Your task to perform on an android device: Open network settings Image 0: 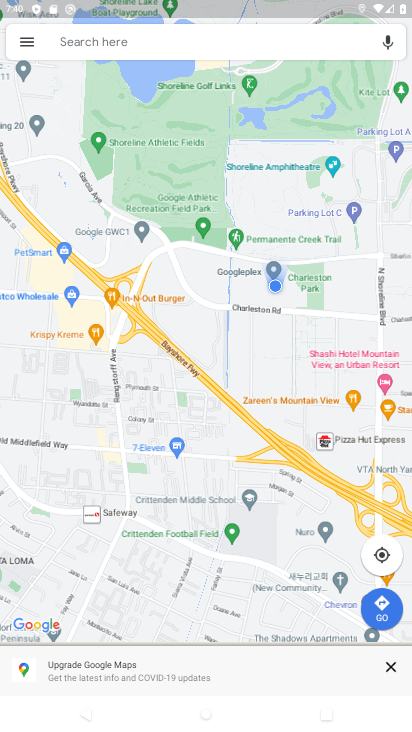
Step 0: press home button
Your task to perform on an android device: Open network settings Image 1: 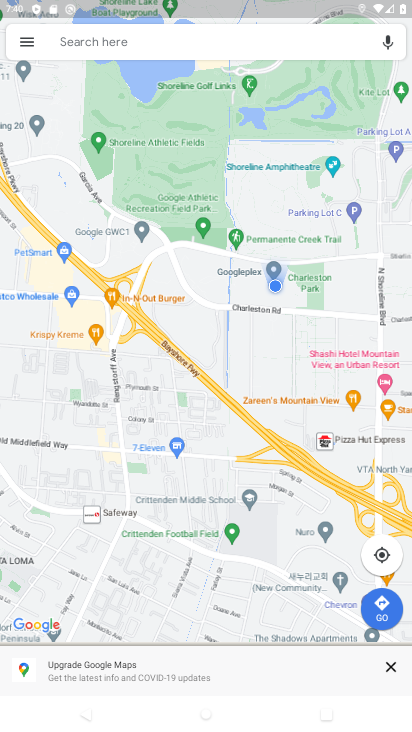
Step 1: drag from (148, 670) to (260, 82)
Your task to perform on an android device: Open network settings Image 2: 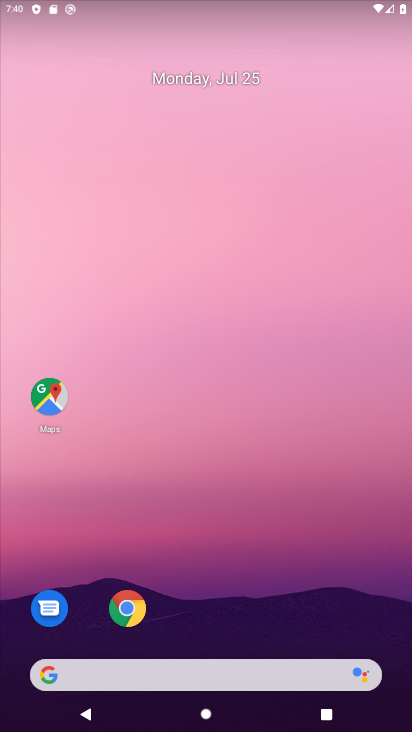
Step 2: drag from (193, 502) to (207, 92)
Your task to perform on an android device: Open network settings Image 3: 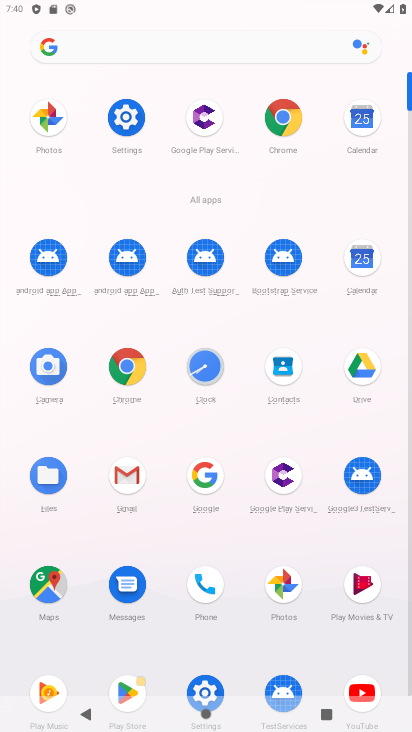
Step 3: click (142, 124)
Your task to perform on an android device: Open network settings Image 4: 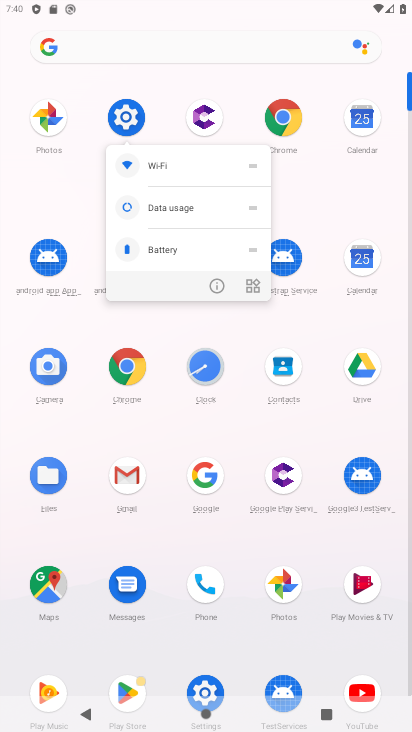
Step 4: click (210, 283)
Your task to perform on an android device: Open network settings Image 5: 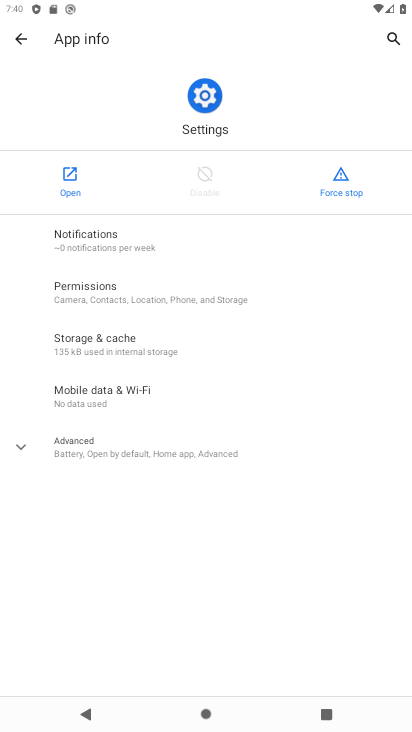
Step 5: click (72, 172)
Your task to perform on an android device: Open network settings Image 6: 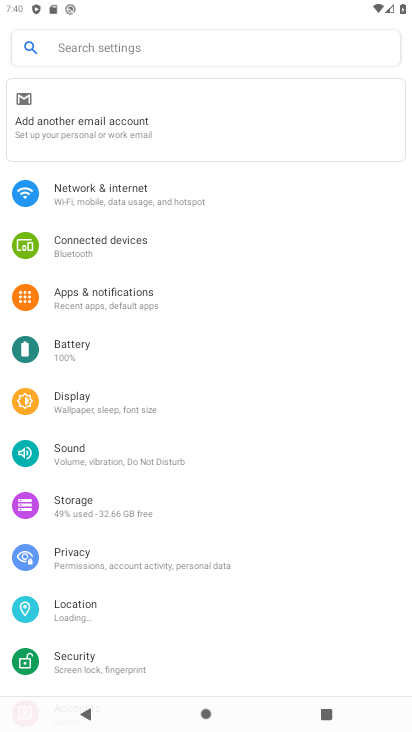
Step 6: click (103, 205)
Your task to perform on an android device: Open network settings Image 7: 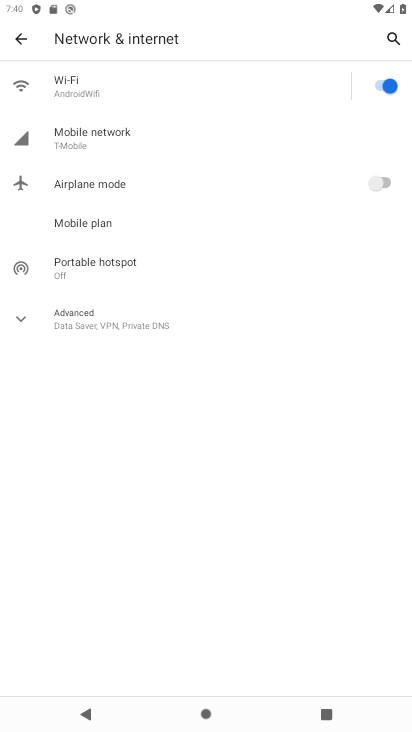
Step 7: task complete